Your task to perform on an android device: turn on airplane mode Image 0: 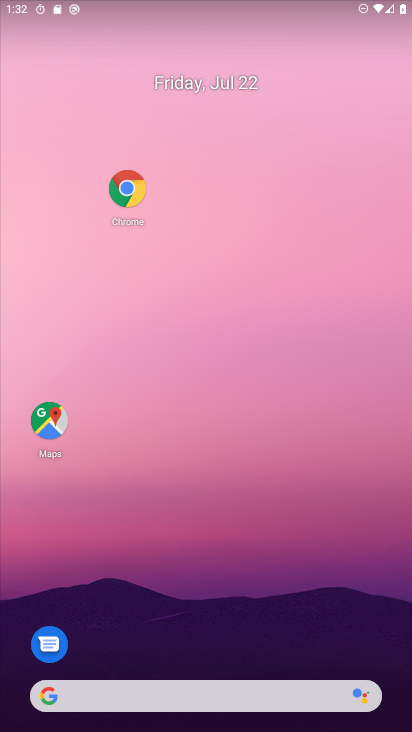
Step 0: drag from (281, 10) to (283, 624)
Your task to perform on an android device: turn on airplane mode Image 1: 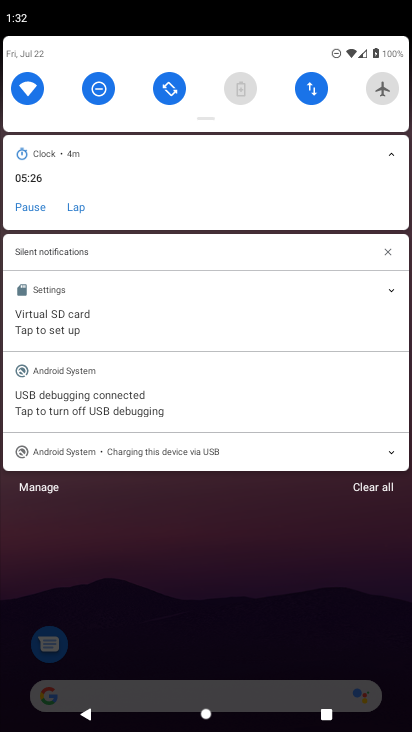
Step 1: click (379, 85)
Your task to perform on an android device: turn on airplane mode Image 2: 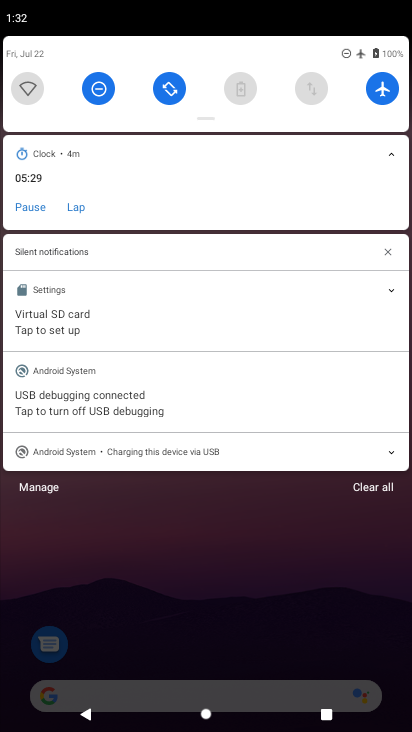
Step 2: task complete